Your task to perform on an android device: turn on bluetooth scan Image 0: 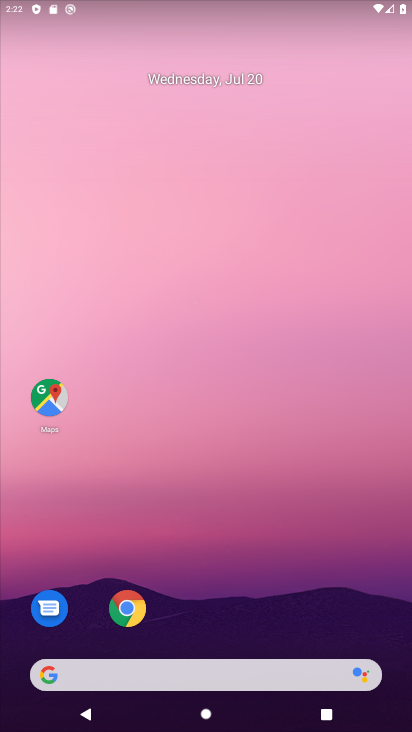
Step 0: drag from (260, 626) to (303, 154)
Your task to perform on an android device: turn on bluetooth scan Image 1: 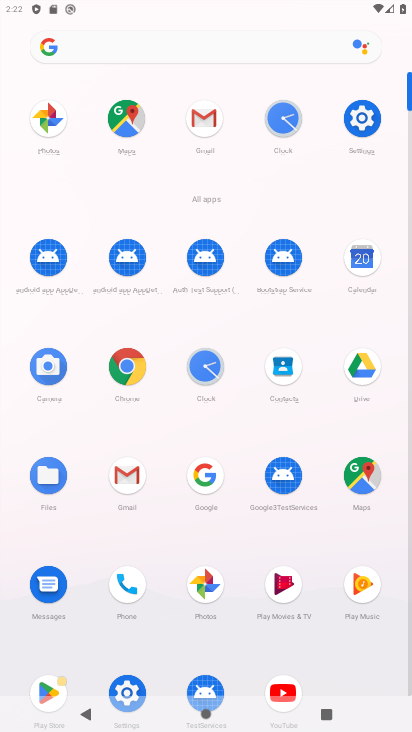
Step 1: click (124, 686)
Your task to perform on an android device: turn on bluetooth scan Image 2: 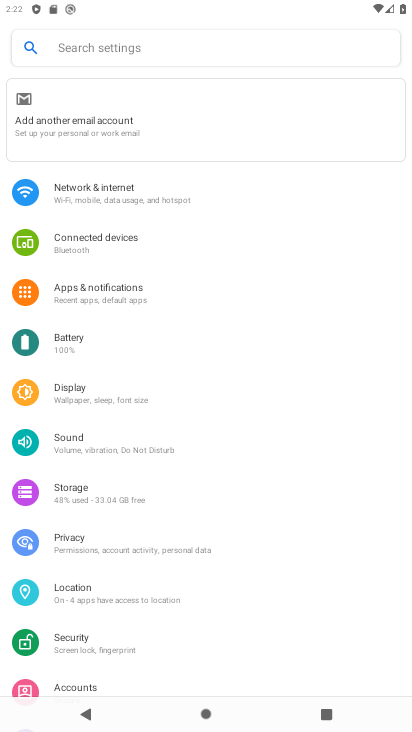
Step 2: click (163, 243)
Your task to perform on an android device: turn on bluetooth scan Image 3: 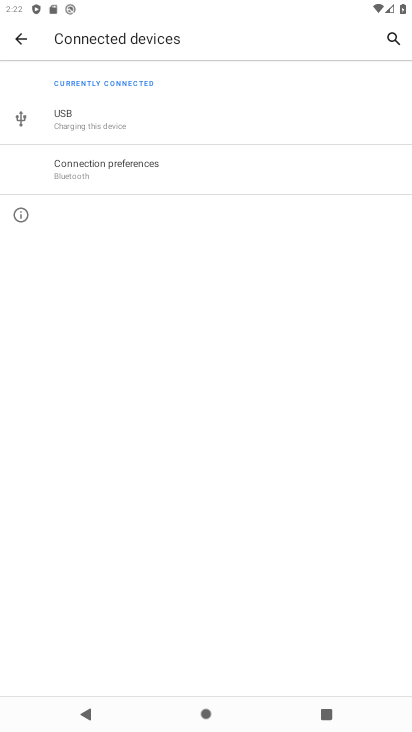
Step 3: click (121, 162)
Your task to perform on an android device: turn on bluetooth scan Image 4: 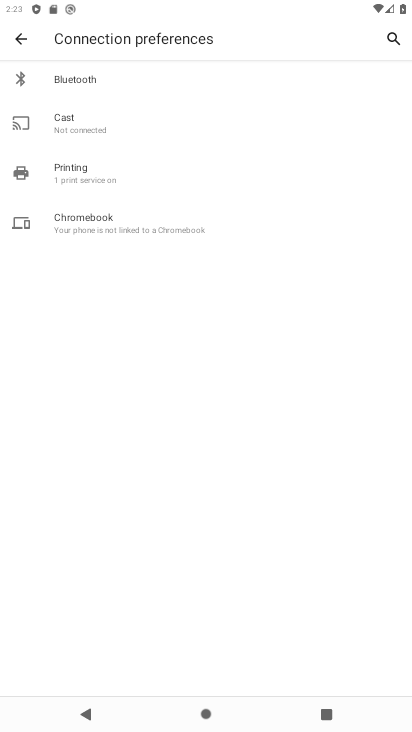
Step 4: click (215, 73)
Your task to perform on an android device: turn on bluetooth scan Image 5: 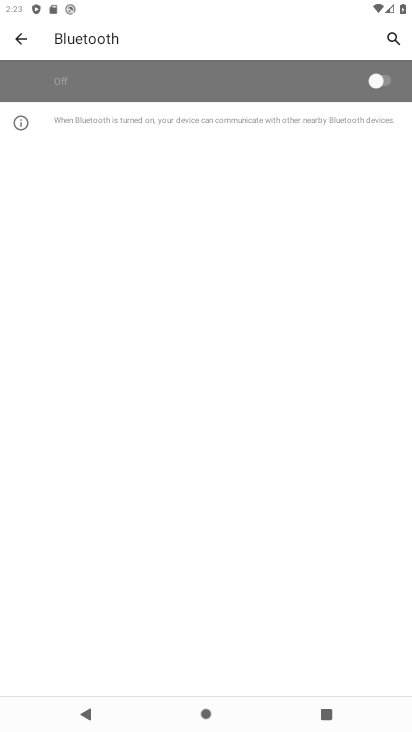
Step 5: click (399, 71)
Your task to perform on an android device: turn on bluetooth scan Image 6: 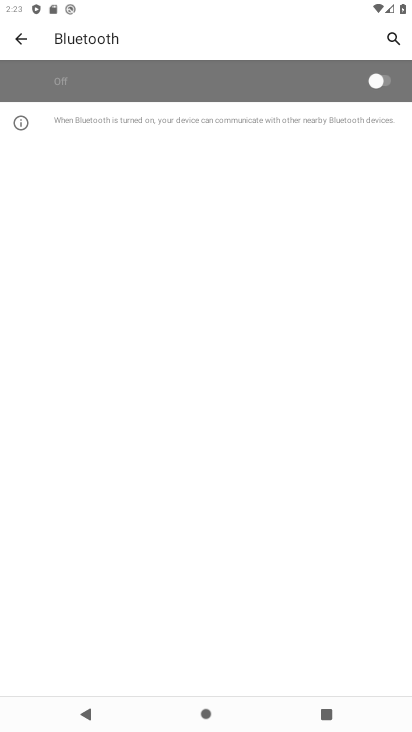
Step 6: task complete